Your task to perform on an android device: Open Google Maps Image 0: 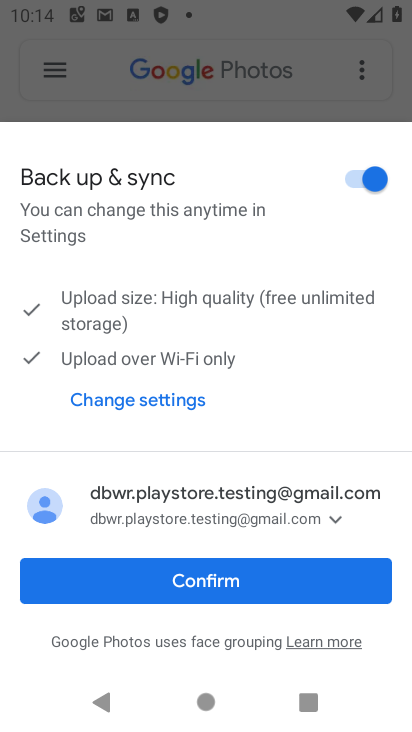
Step 0: press home button
Your task to perform on an android device: Open Google Maps Image 1: 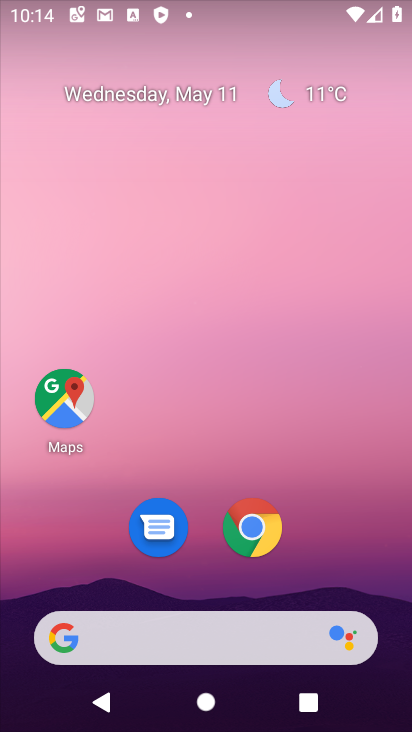
Step 1: drag from (324, 555) to (339, 88)
Your task to perform on an android device: Open Google Maps Image 2: 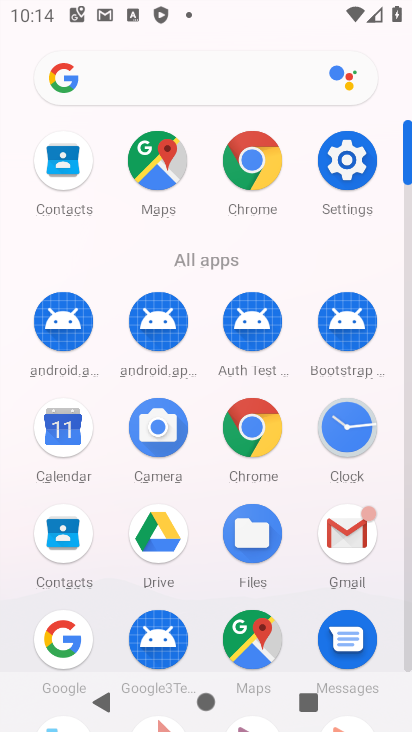
Step 2: click (256, 626)
Your task to perform on an android device: Open Google Maps Image 3: 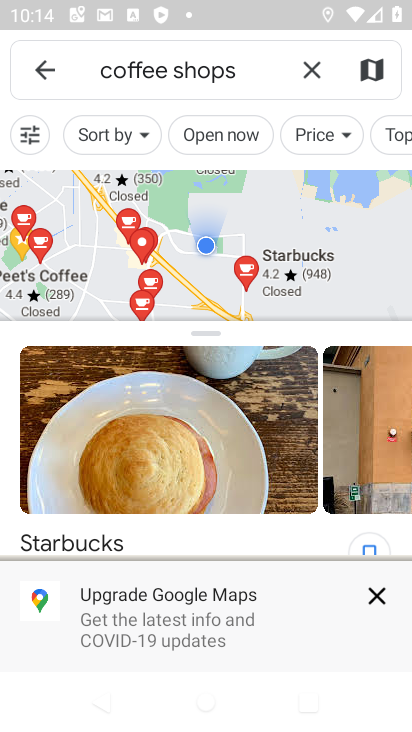
Step 3: task complete